Your task to perform on an android device: star an email in the gmail app Image 0: 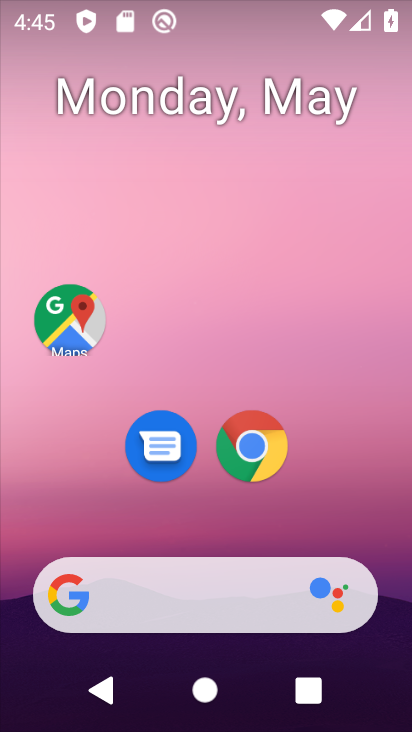
Step 0: drag from (332, 498) to (264, 89)
Your task to perform on an android device: star an email in the gmail app Image 1: 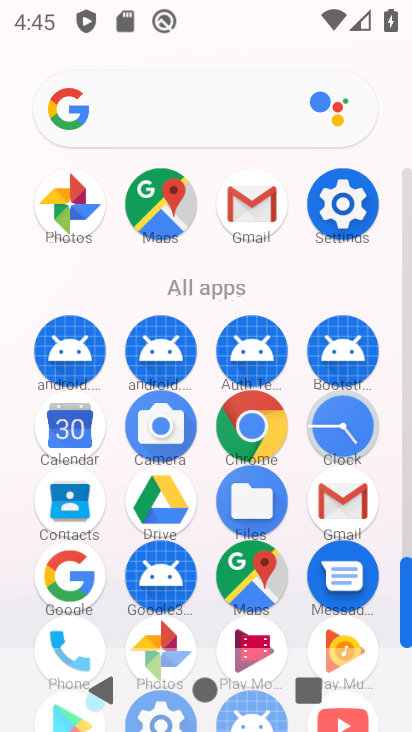
Step 1: click (257, 193)
Your task to perform on an android device: star an email in the gmail app Image 2: 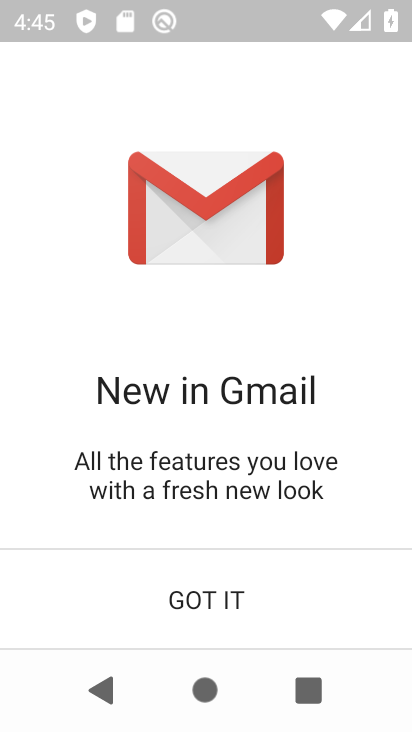
Step 2: click (201, 594)
Your task to perform on an android device: star an email in the gmail app Image 3: 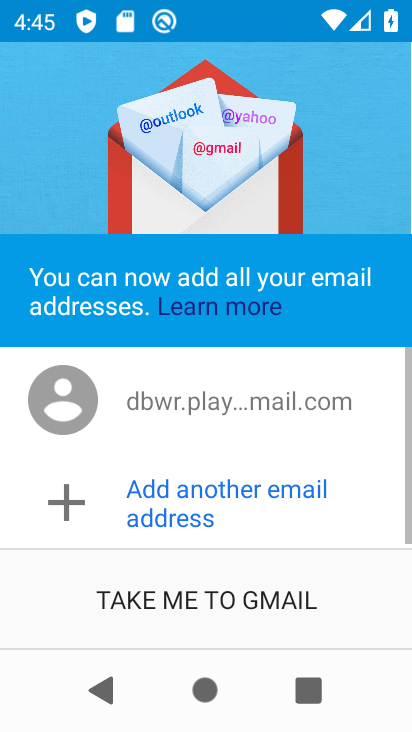
Step 3: click (210, 598)
Your task to perform on an android device: star an email in the gmail app Image 4: 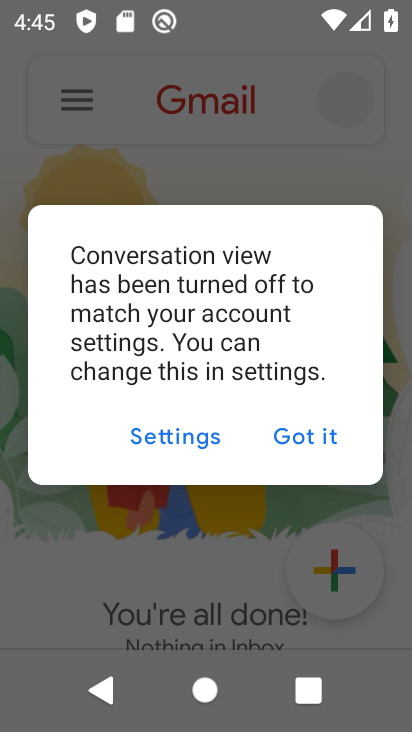
Step 4: click (314, 432)
Your task to perform on an android device: star an email in the gmail app Image 5: 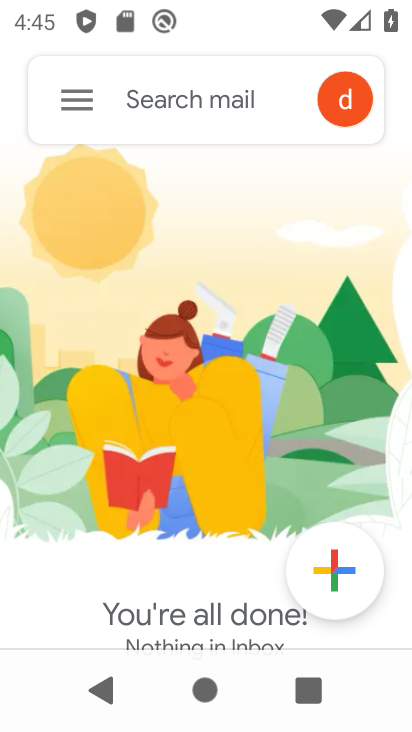
Step 5: click (67, 108)
Your task to perform on an android device: star an email in the gmail app Image 6: 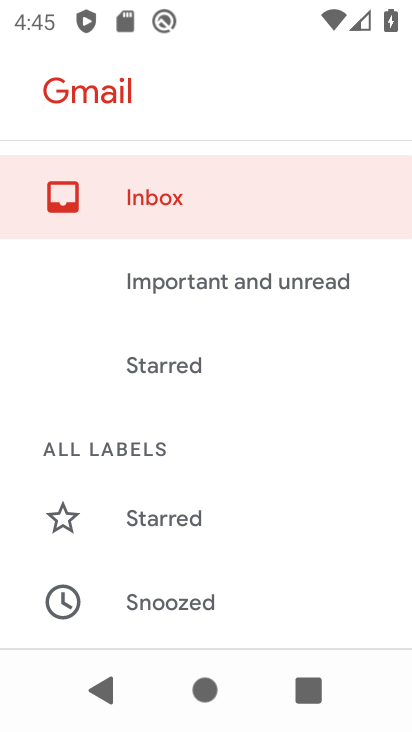
Step 6: drag from (284, 524) to (250, 271)
Your task to perform on an android device: star an email in the gmail app Image 7: 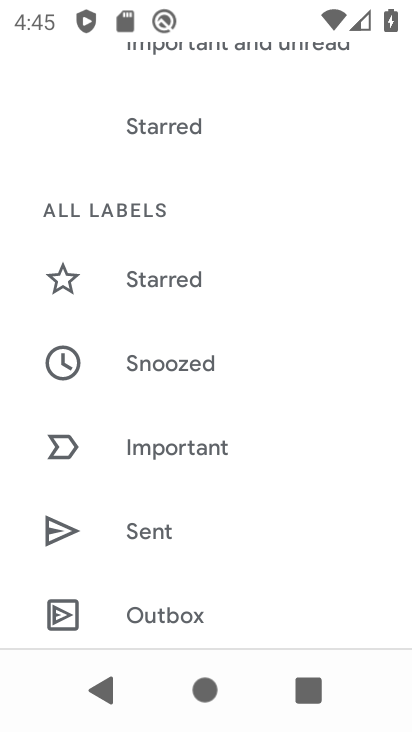
Step 7: drag from (234, 564) to (234, 221)
Your task to perform on an android device: star an email in the gmail app Image 8: 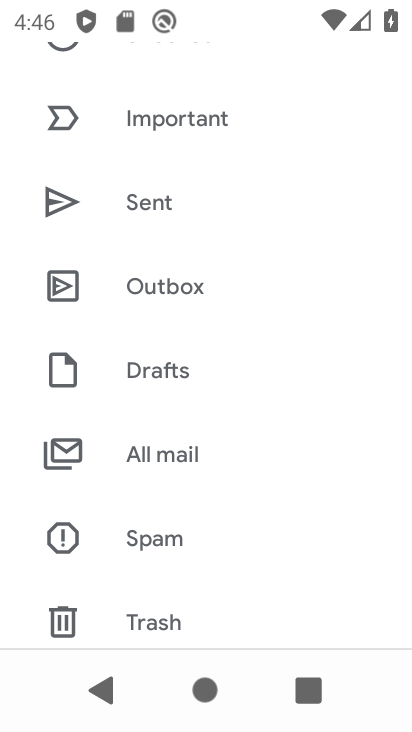
Step 8: click (197, 444)
Your task to perform on an android device: star an email in the gmail app Image 9: 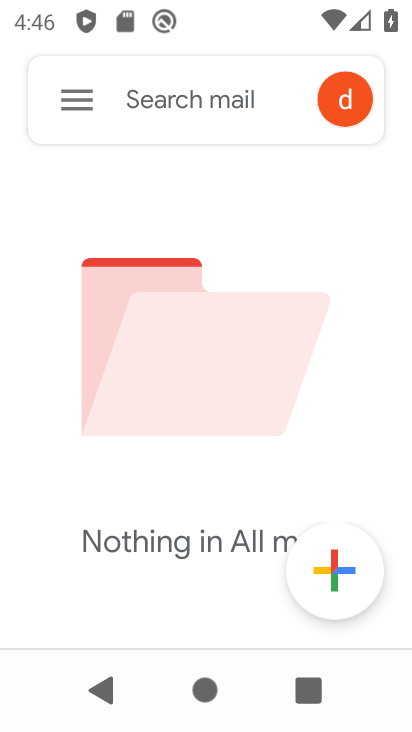
Step 9: task complete